Your task to perform on an android device: Open the map Image 0: 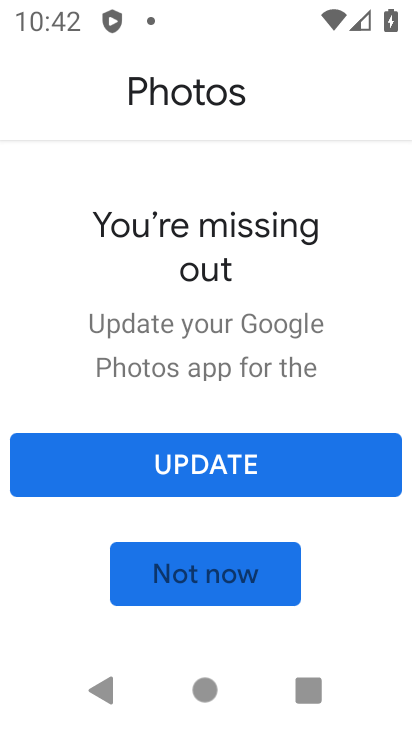
Step 0: press home button
Your task to perform on an android device: Open the map Image 1: 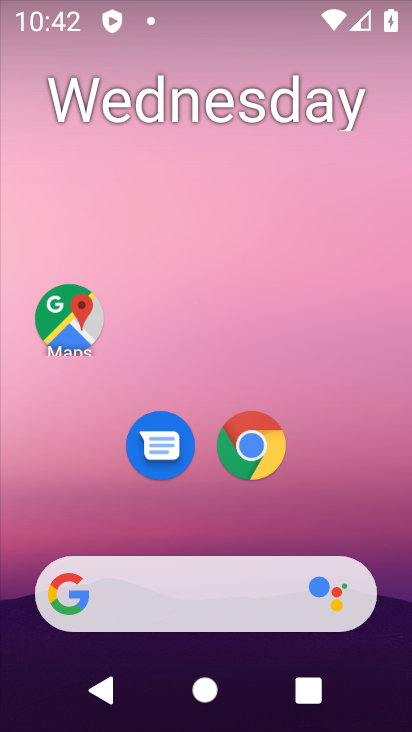
Step 1: click (68, 340)
Your task to perform on an android device: Open the map Image 2: 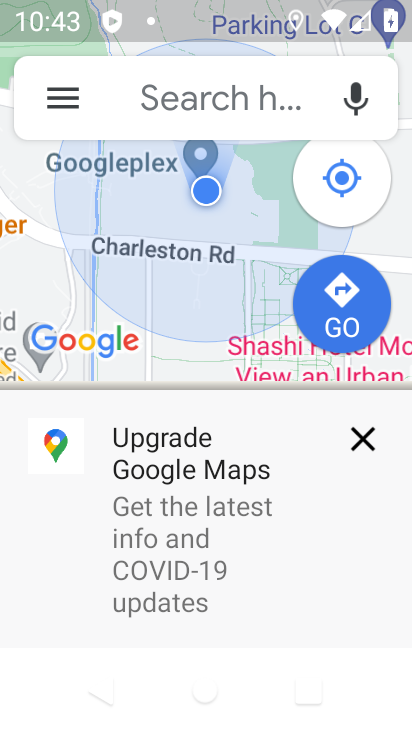
Step 2: task complete